Your task to perform on an android device: create a new album in the google photos Image 0: 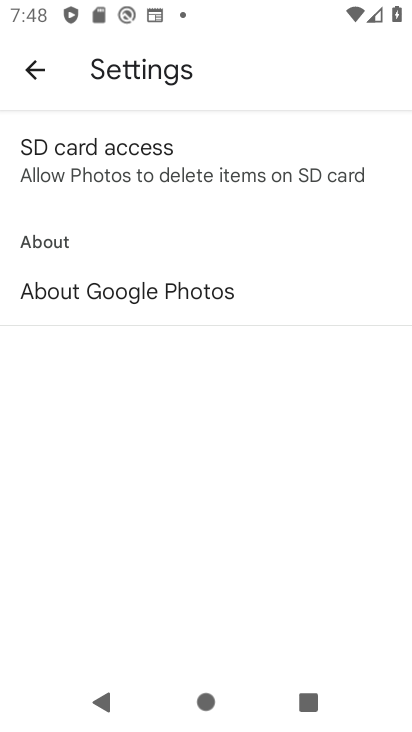
Step 0: press home button
Your task to perform on an android device: create a new album in the google photos Image 1: 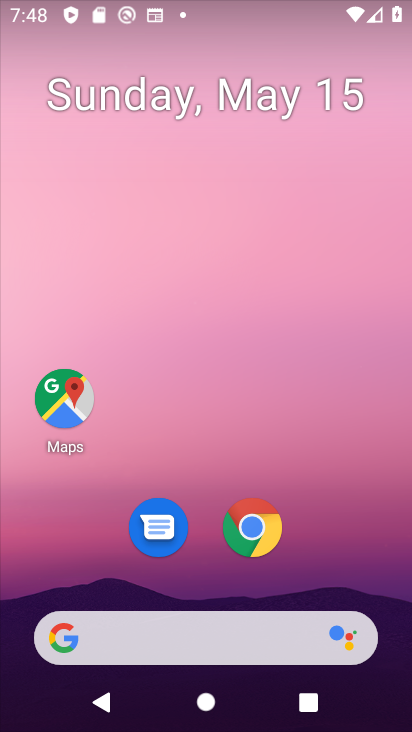
Step 1: drag from (214, 644) to (328, 182)
Your task to perform on an android device: create a new album in the google photos Image 2: 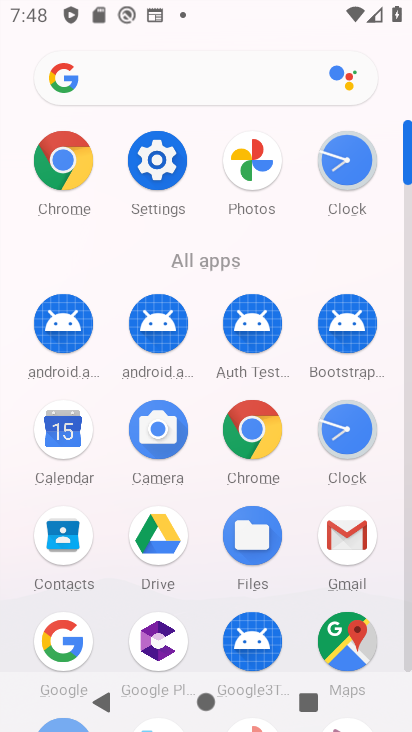
Step 2: drag from (212, 649) to (275, 326)
Your task to perform on an android device: create a new album in the google photos Image 3: 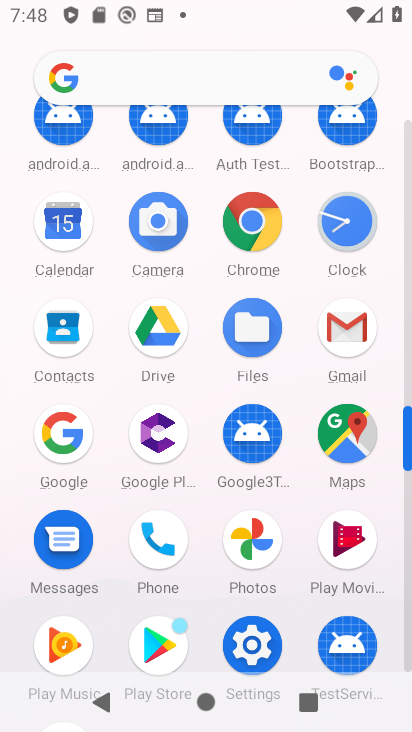
Step 3: click (257, 542)
Your task to perform on an android device: create a new album in the google photos Image 4: 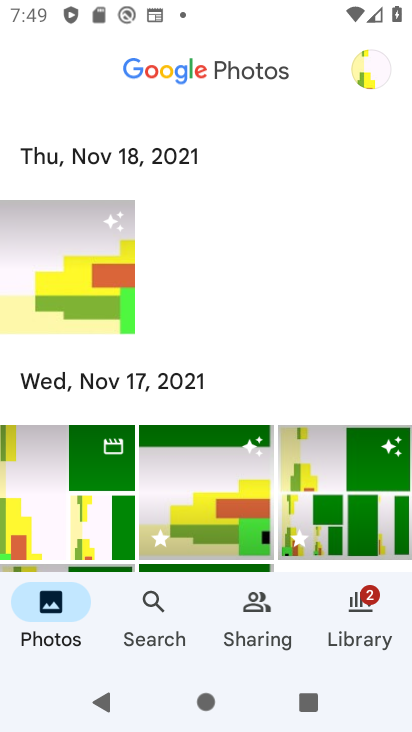
Step 4: click (369, 619)
Your task to perform on an android device: create a new album in the google photos Image 5: 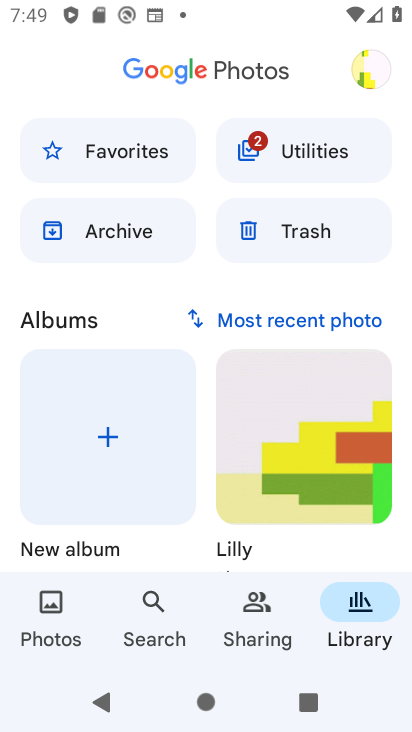
Step 5: click (102, 428)
Your task to perform on an android device: create a new album in the google photos Image 6: 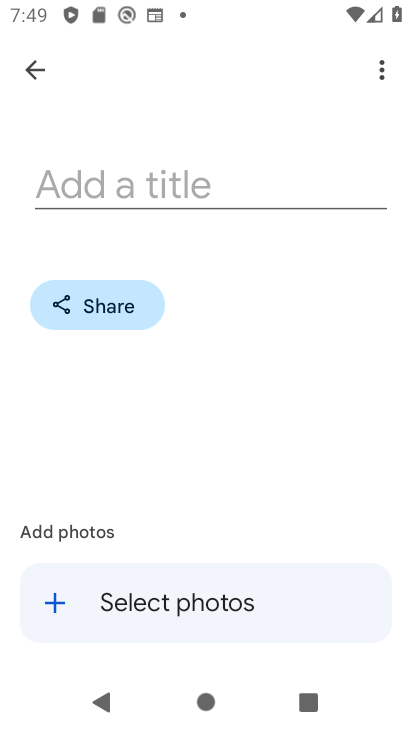
Step 6: click (179, 605)
Your task to perform on an android device: create a new album in the google photos Image 7: 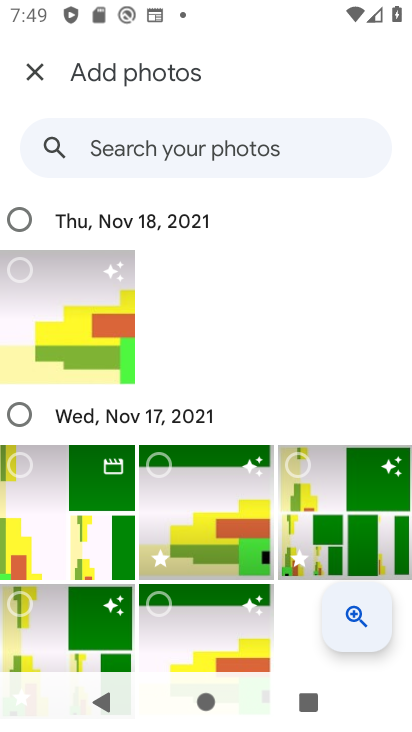
Step 7: click (40, 330)
Your task to perform on an android device: create a new album in the google photos Image 8: 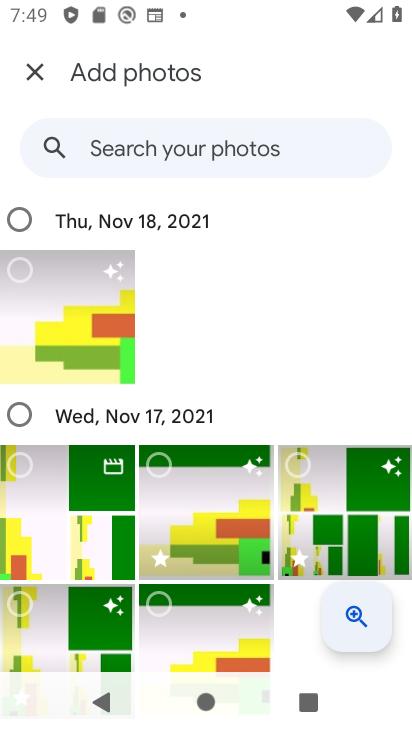
Step 8: click (22, 454)
Your task to perform on an android device: create a new album in the google photos Image 9: 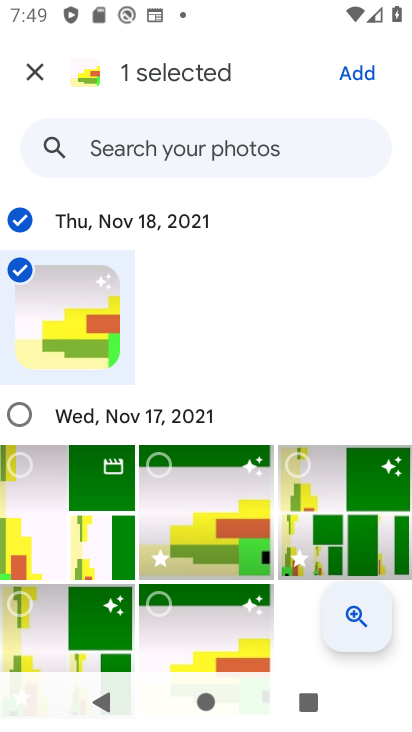
Step 9: click (152, 478)
Your task to perform on an android device: create a new album in the google photos Image 10: 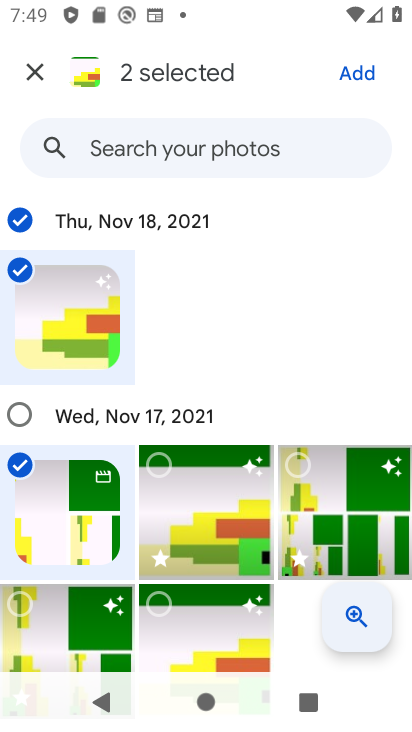
Step 10: click (296, 471)
Your task to perform on an android device: create a new album in the google photos Image 11: 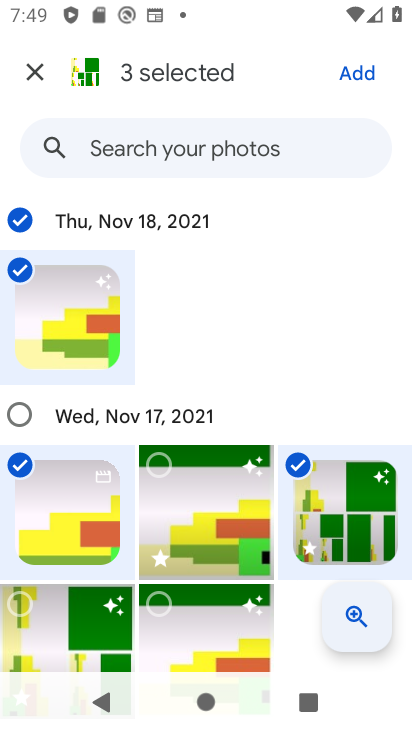
Step 11: click (366, 71)
Your task to perform on an android device: create a new album in the google photos Image 12: 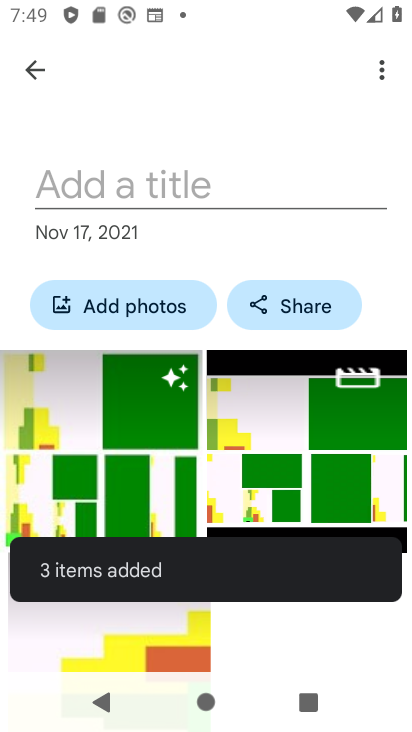
Step 12: drag from (236, 504) to (368, 117)
Your task to perform on an android device: create a new album in the google photos Image 13: 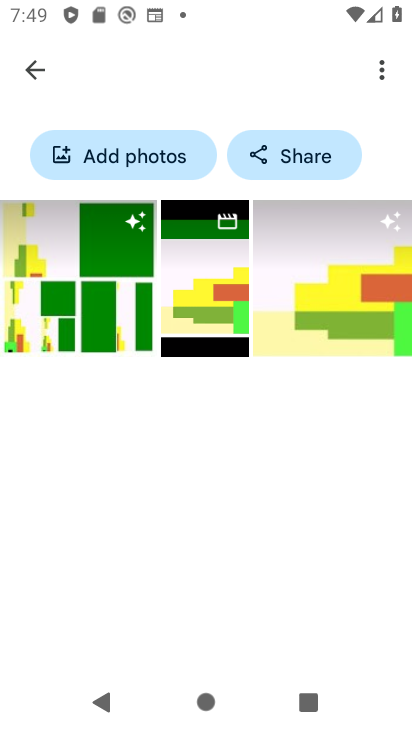
Step 13: drag from (226, 510) to (357, 136)
Your task to perform on an android device: create a new album in the google photos Image 14: 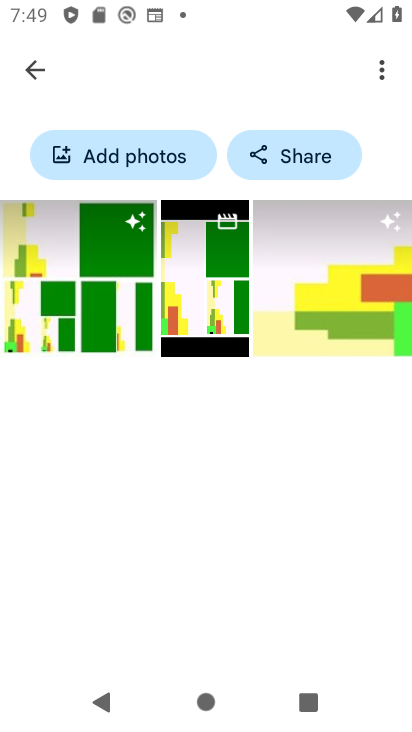
Step 14: click (379, 76)
Your task to perform on an android device: create a new album in the google photos Image 15: 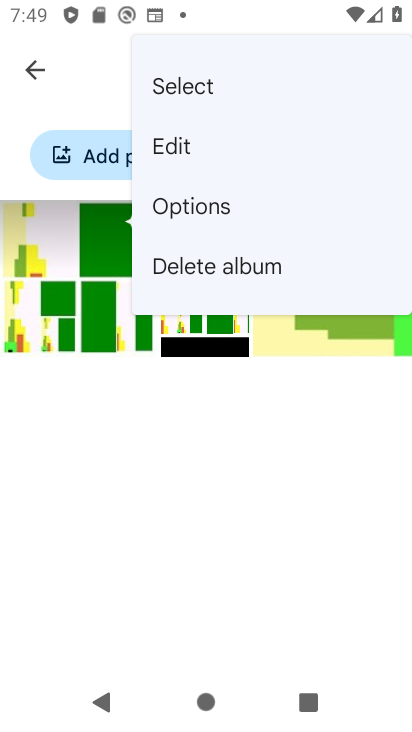
Step 15: click (263, 445)
Your task to perform on an android device: create a new album in the google photos Image 16: 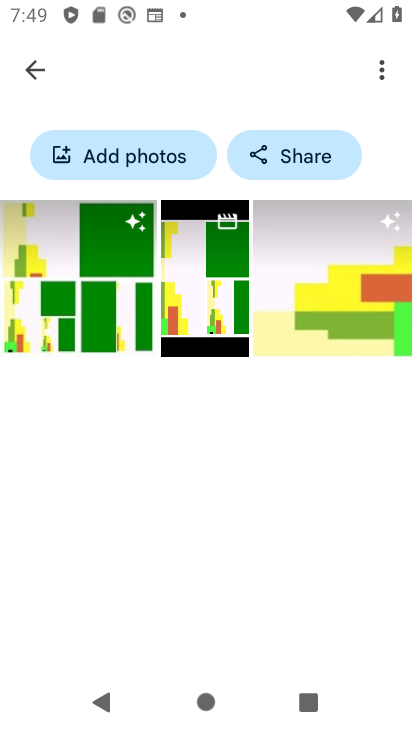
Step 16: task complete